Your task to perform on an android device: turn vacation reply on in the gmail app Image 0: 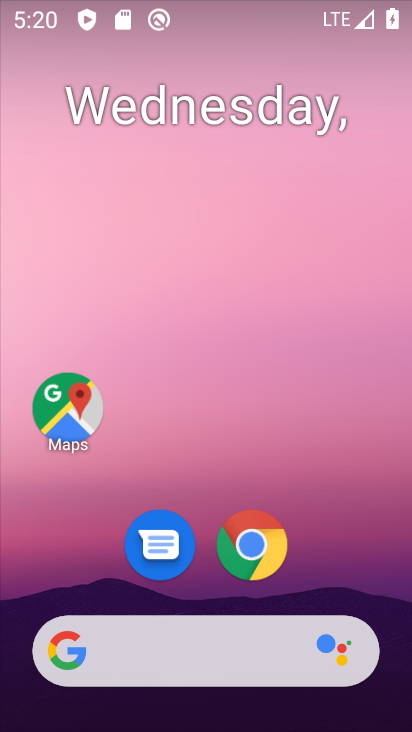
Step 0: drag from (209, 543) to (379, 9)
Your task to perform on an android device: turn vacation reply on in the gmail app Image 1: 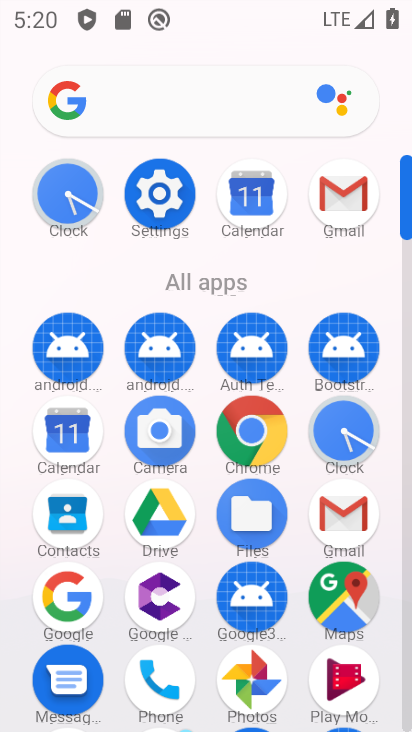
Step 1: click (344, 198)
Your task to perform on an android device: turn vacation reply on in the gmail app Image 2: 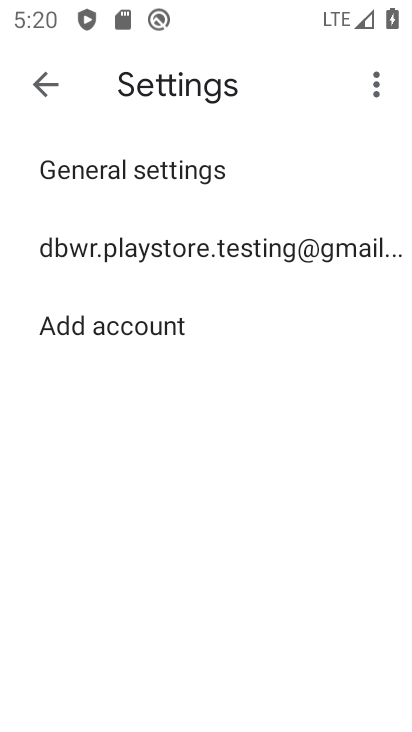
Step 2: click (181, 243)
Your task to perform on an android device: turn vacation reply on in the gmail app Image 3: 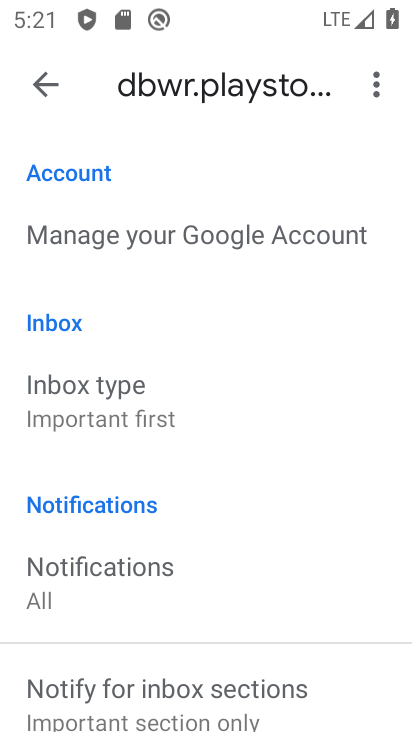
Step 3: drag from (168, 627) to (241, 348)
Your task to perform on an android device: turn vacation reply on in the gmail app Image 4: 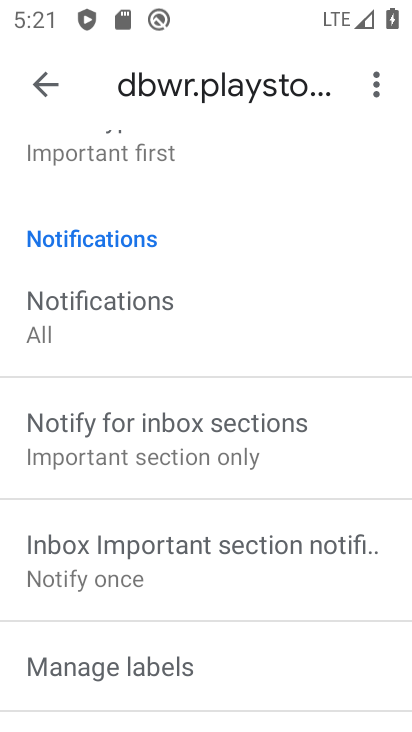
Step 4: drag from (141, 639) to (281, 112)
Your task to perform on an android device: turn vacation reply on in the gmail app Image 5: 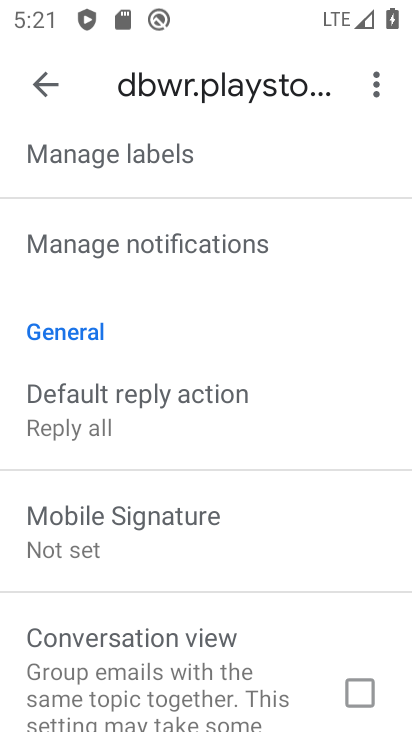
Step 5: drag from (167, 674) to (282, 53)
Your task to perform on an android device: turn vacation reply on in the gmail app Image 6: 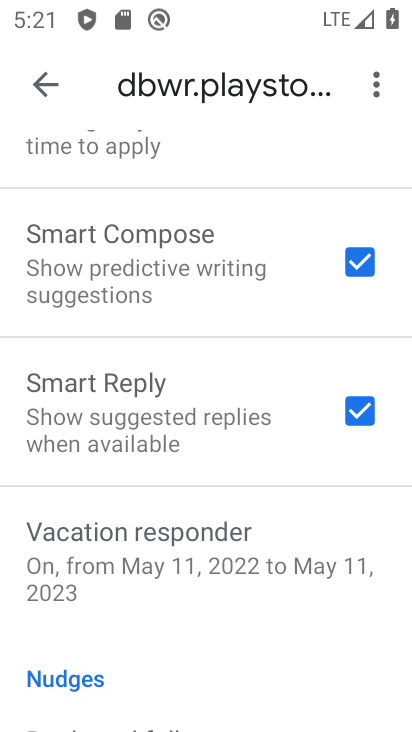
Step 6: click (196, 565)
Your task to perform on an android device: turn vacation reply on in the gmail app Image 7: 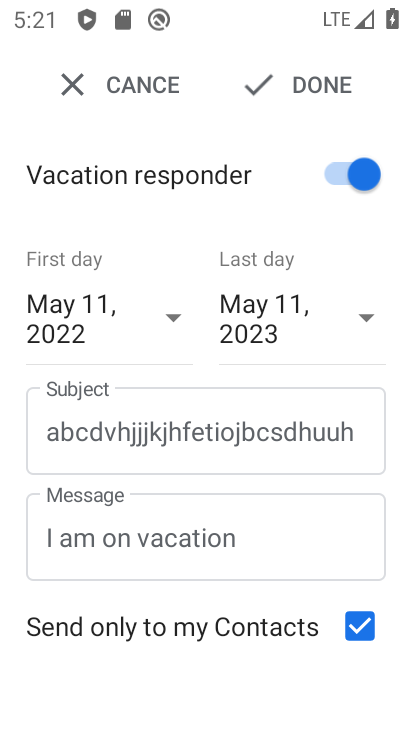
Step 7: task complete